Your task to perform on an android device: Set the phone to "Do not disturb". Image 0: 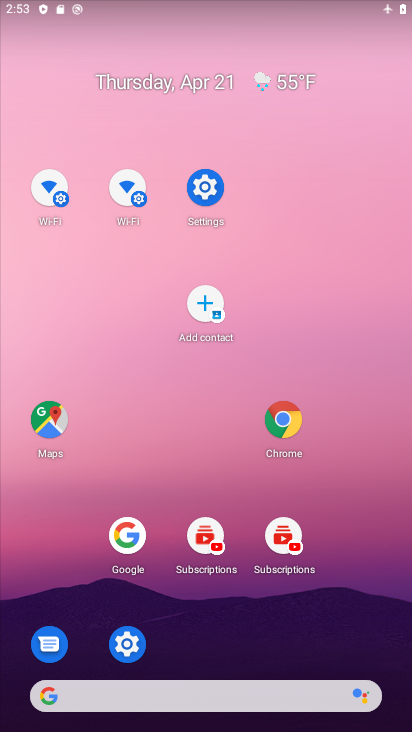
Step 0: drag from (169, 5) to (134, 639)
Your task to perform on an android device: Set the phone to "Do not disturb". Image 1: 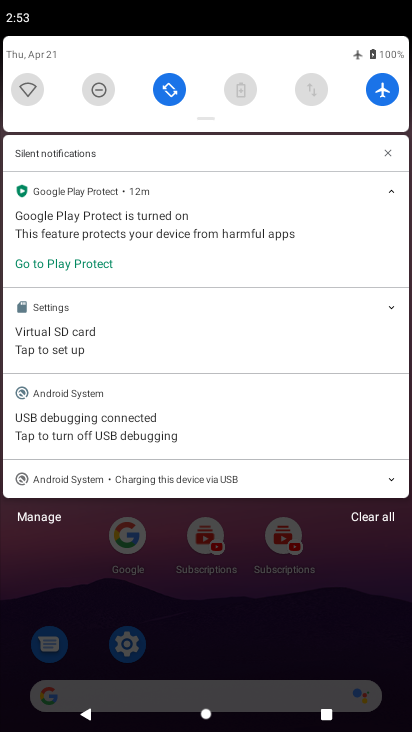
Step 1: click (374, 87)
Your task to perform on an android device: Set the phone to "Do not disturb". Image 2: 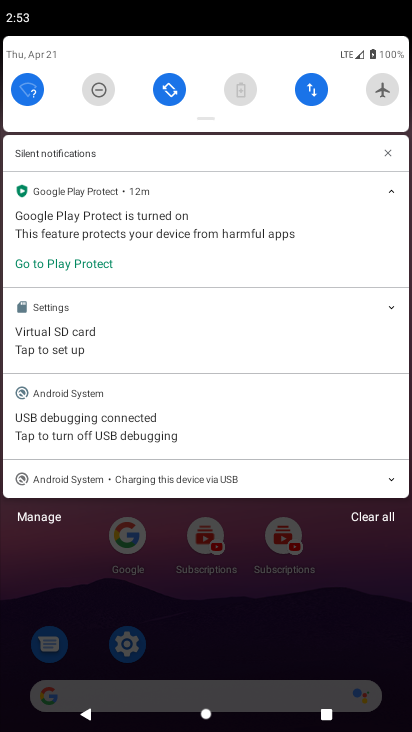
Step 2: drag from (231, 501) to (214, 10)
Your task to perform on an android device: Set the phone to "Do not disturb". Image 3: 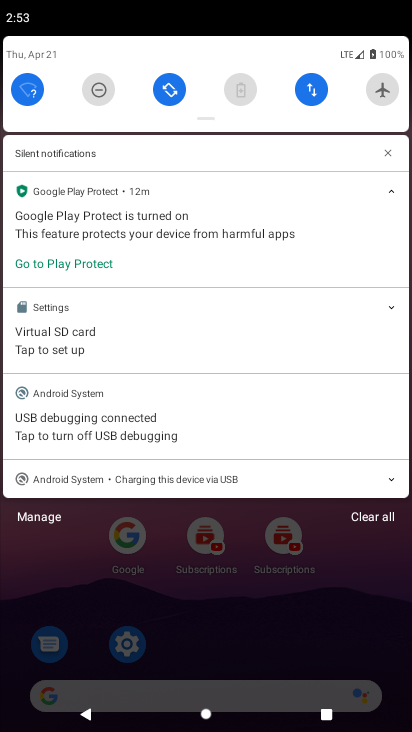
Step 3: drag from (230, 368) to (195, 61)
Your task to perform on an android device: Set the phone to "Do not disturb". Image 4: 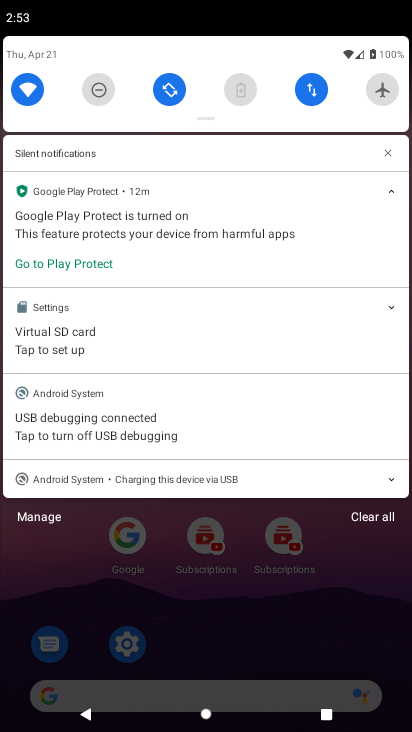
Step 4: drag from (193, 548) to (146, 277)
Your task to perform on an android device: Set the phone to "Do not disturb". Image 5: 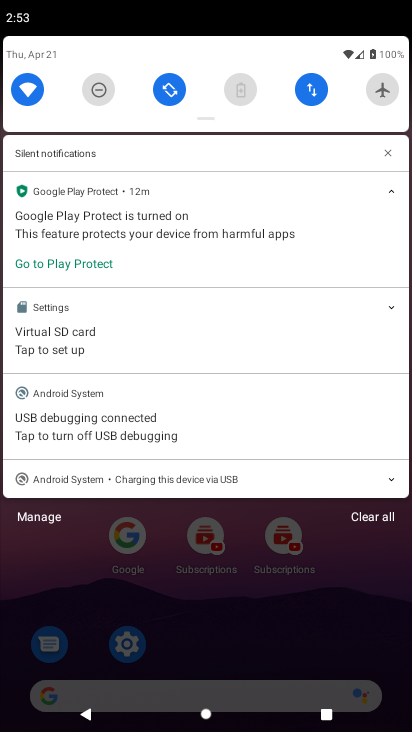
Step 5: drag from (324, 543) to (291, 149)
Your task to perform on an android device: Set the phone to "Do not disturb". Image 6: 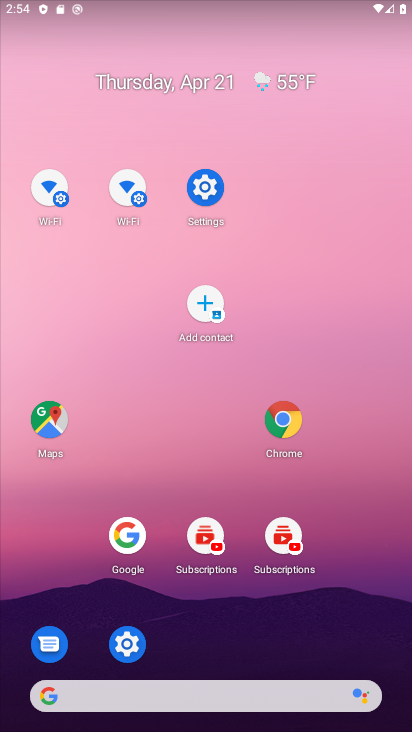
Step 6: drag from (274, 509) to (178, 59)
Your task to perform on an android device: Set the phone to "Do not disturb". Image 7: 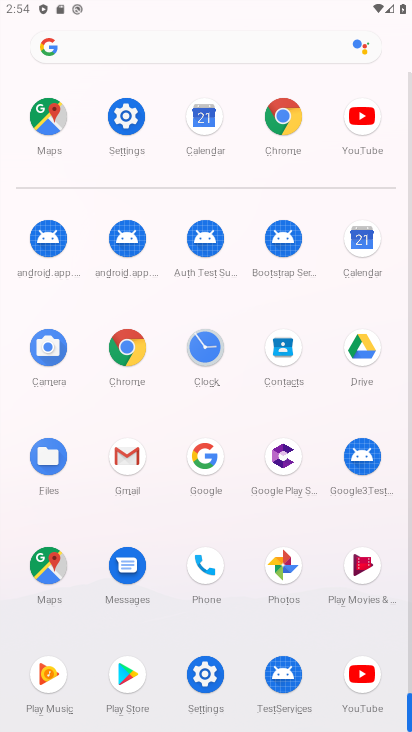
Step 7: click (127, 118)
Your task to perform on an android device: Set the phone to "Do not disturb". Image 8: 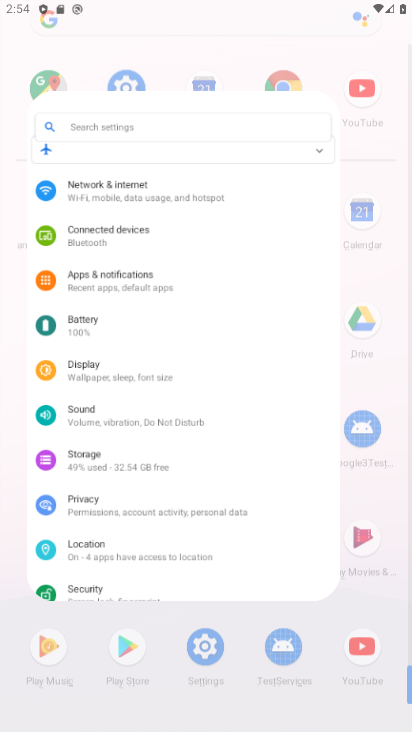
Step 8: click (127, 118)
Your task to perform on an android device: Set the phone to "Do not disturb". Image 9: 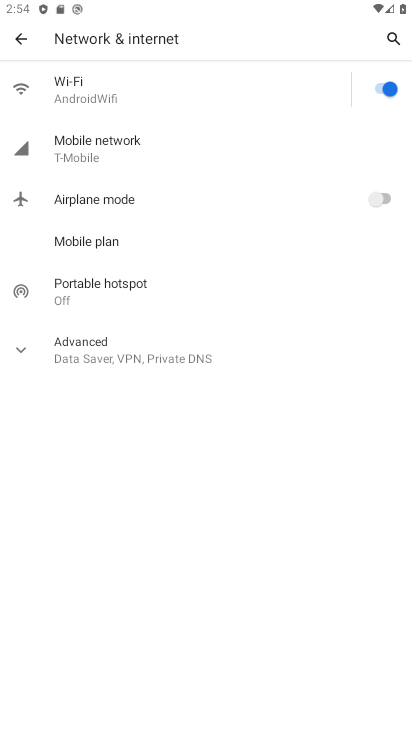
Step 9: click (21, 41)
Your task to perform on an android device: Set the phone to "Do not disturb". Image 10: 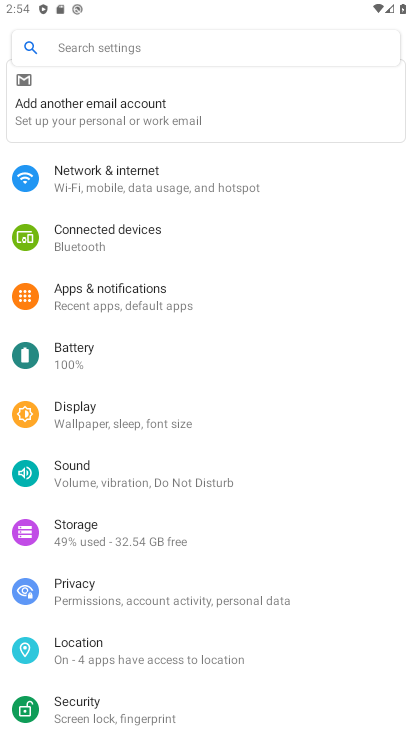
Step 10: click (89, 469)
Your task to perform on an android device: Set the phone to "Do not disturb". Image 11: 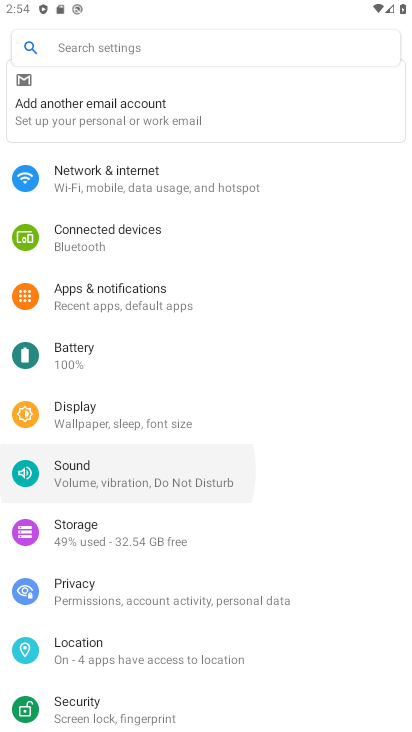
Step 11: click (89, 469)
Your task to perform on an android device: Set the phone to "Do not disturb". Image 12: 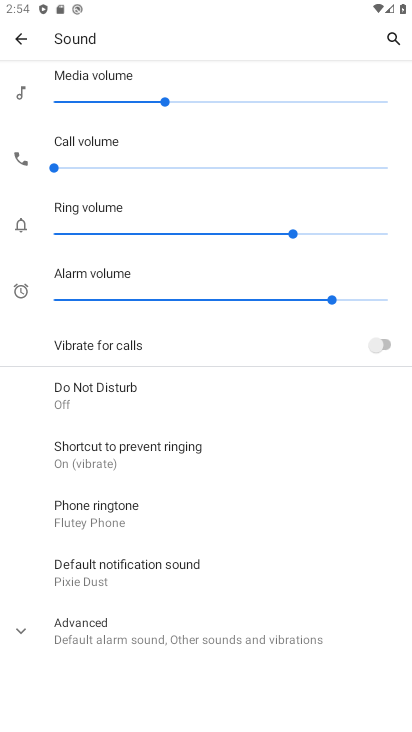
Step 12: drag from (165, 528) to (140, 135)
Your task to perform on an android device: Set the phone to "Do not disturb". Image 13: 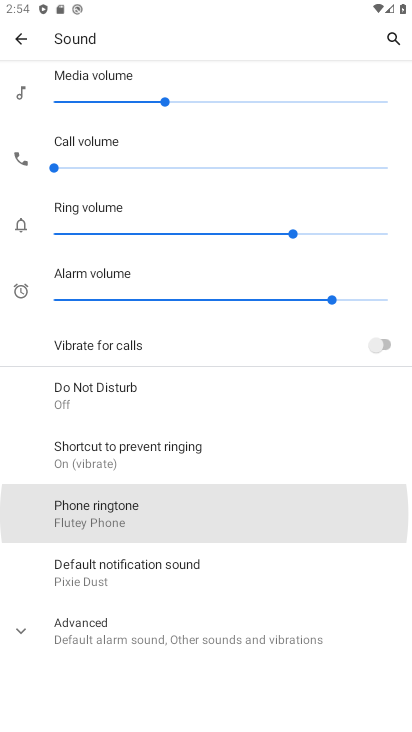
Step 13: drag from (193, 413) to (167, 110)
Your task to perform on an android device: Set the phone to "Do not disturb". Image 14: 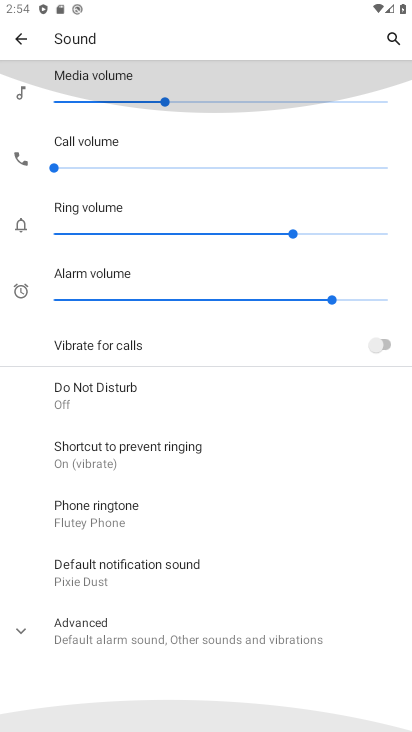
Step 14: drag from (177, 684) to (90, 5)
Your task to perform on an android device: Set the phone to "Do not disturb". Image 15: 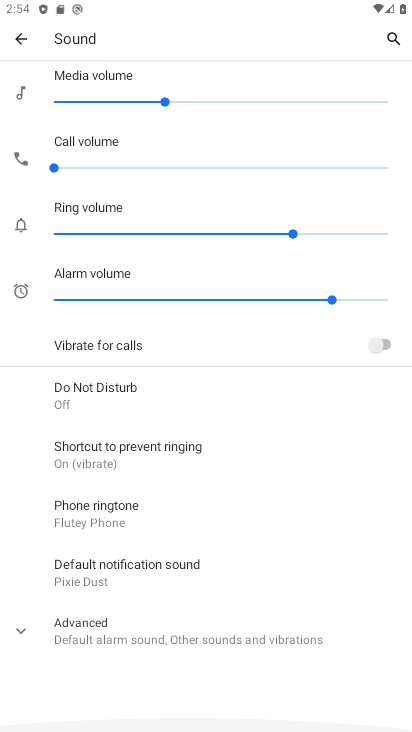
Step 15: drag from (181, 601) to (172, 145)
Your task to perform on an android device: Set the phone to "Do not disturb". Image 16: 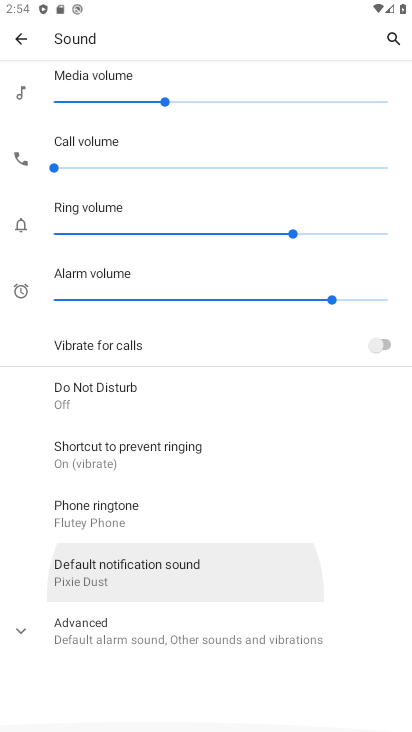
Step 16: drag from (262, 514) to (262, 116)
Your task to perform on an android device: Set the phone to "Do not disturb". Image 17: 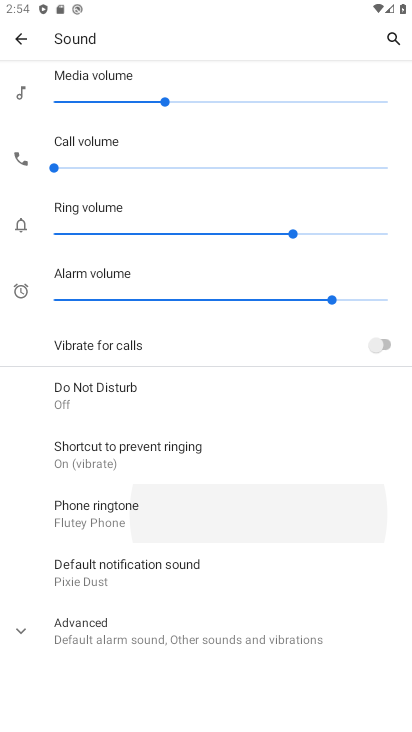
Step 17: drag from (256, 515) to (189, 129)
Your task to perform on an android device: Set the phone to "Do not disturb". Image 18: 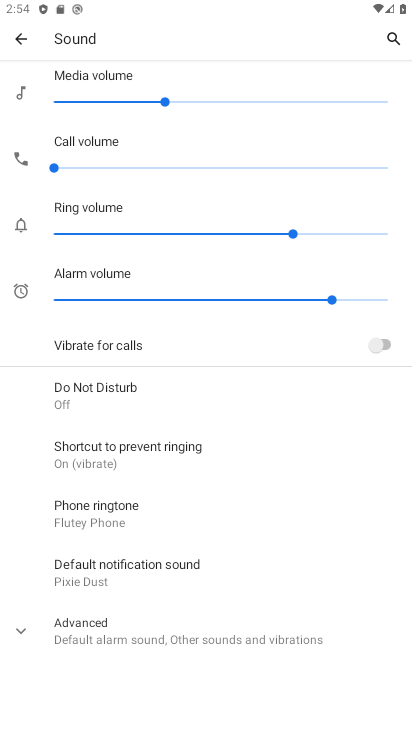
Step 18: click (96, 395)
Your task to perform on an android device: Set the phone to "Do not disturb". Image 19: 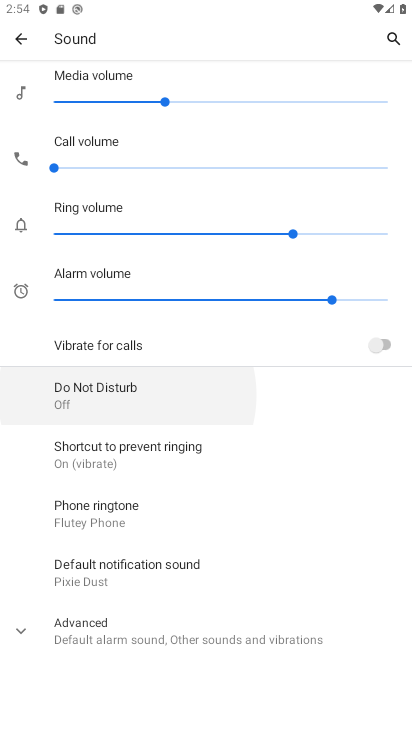
Step 19: click (96, 395)
Your task to perform on an android device: Set the phone to "Do not disturb". Image 20: 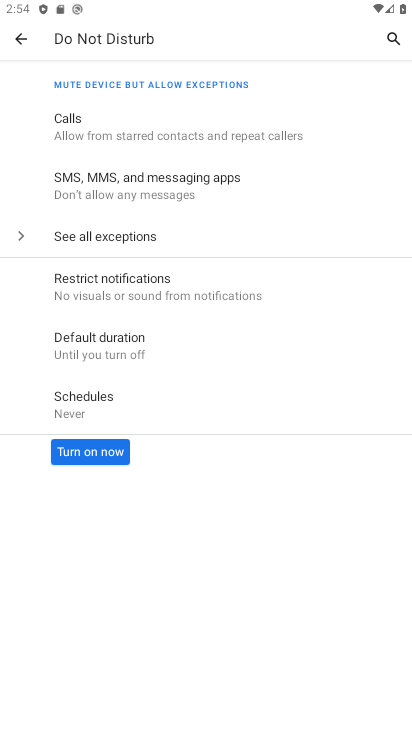
Step 20: click (90, 452)
Your task to perform on an android device: Set the phone to "Do not disturb". Image 21: 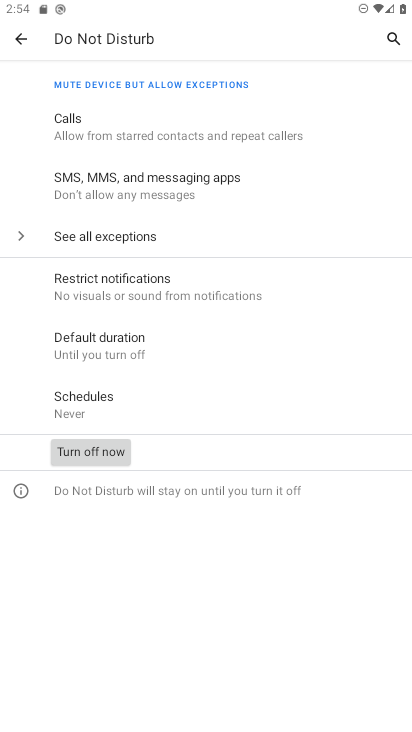
Step 21: task complete